Your task to perform on an android device: change the clock style Image 0: 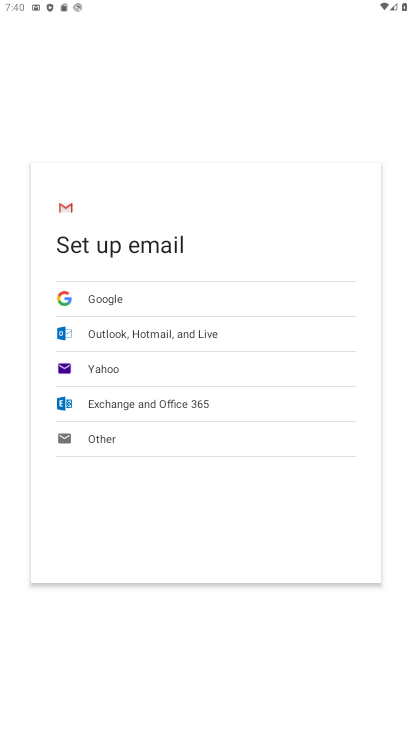
Step 0: click (279, 80)
Your task to perform on an android device: change the clock style Image 1: 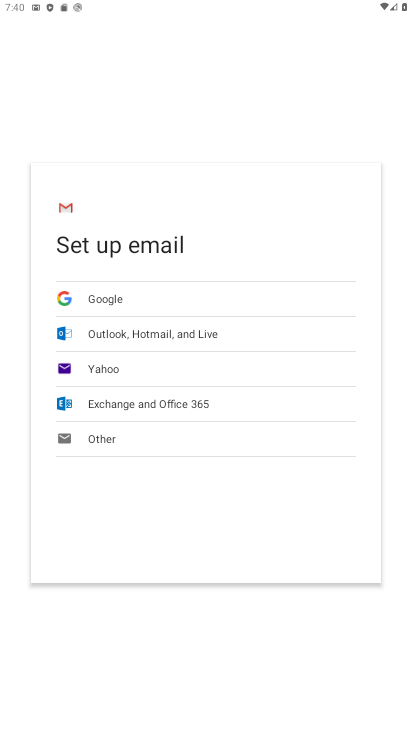
Step 1: click (283, 63)
Your task to perform on an android device: change the clock style Image 2: 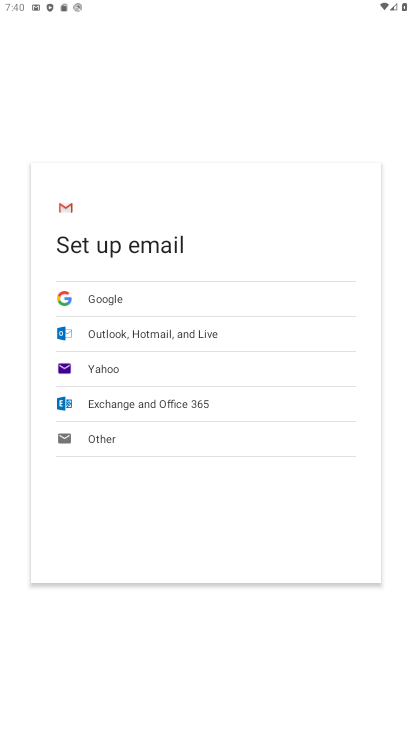
Step 2: click (283, 63)
Your task to perform on an android device: change the clock style Image 3: 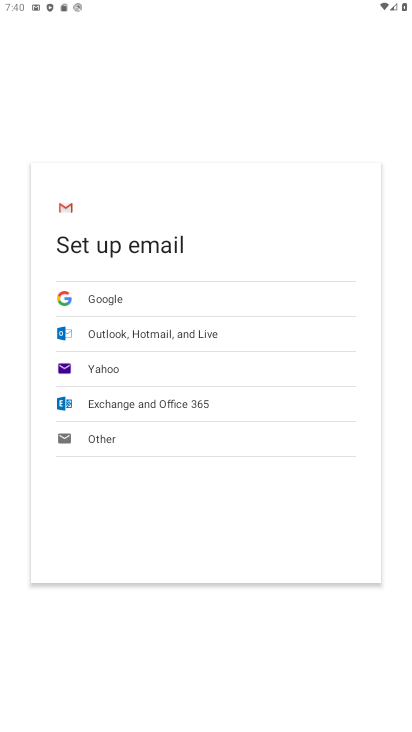
Step 3: press back button
Your task to perform on an android device: change the clock style Image 4: 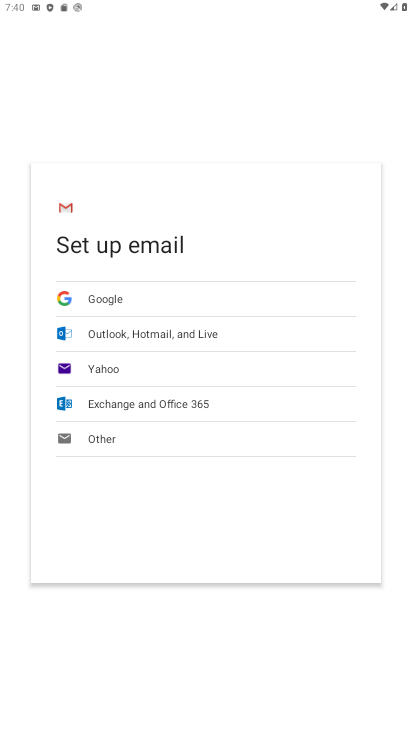
Step 4: press back button
Your task to perform on an android device: change the clock style Image 5: 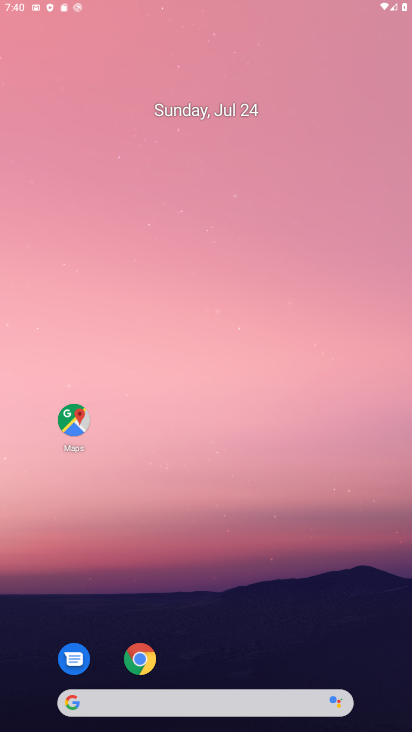
Step 5: press back button
Your task to perform on an android device: change the clock style Image 6: 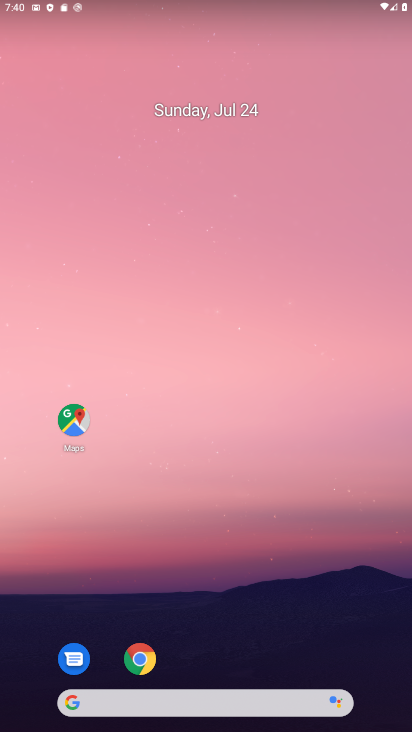
Step 6: drag from (212, 561) to (137, 3)
Your task to perform on an android device: change the clock style Image 7: 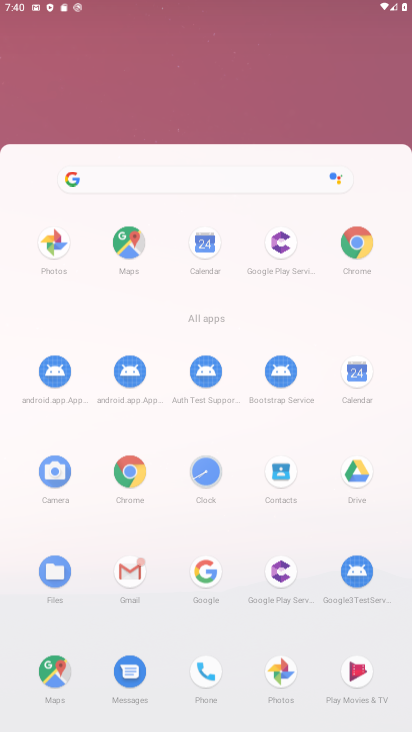
Step 7: drag from (208, 417) to (147, 8)
Your task to perform on an android device: change the clock style Image 8: 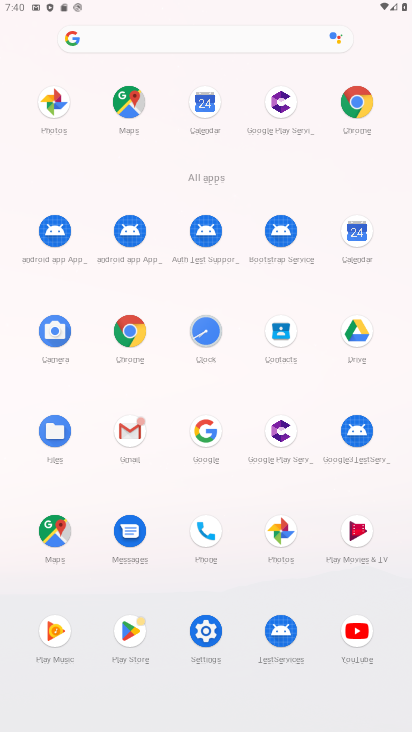
Step 8: click (198, 339)
Your task to perform on an android device: change the clock style Image 9: 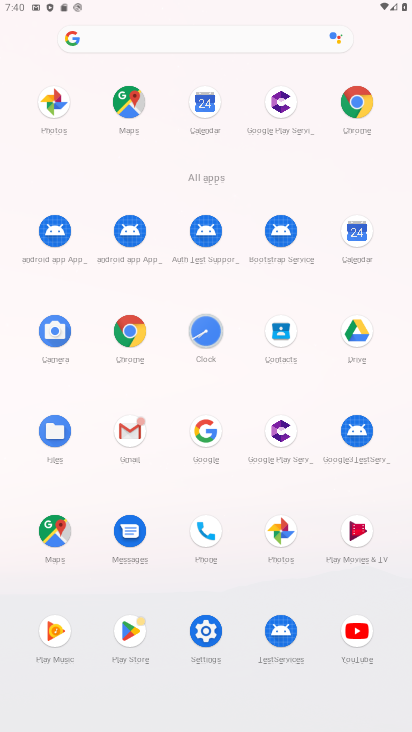
Step 9: click (197, 339)
Your task to perform on an android device: change the clock style Image 10: 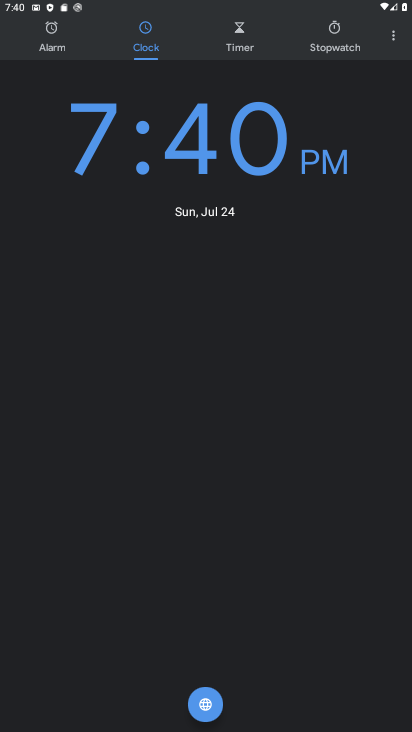
Step 10: click (393, 42)
Your task to perform on an android device: change the clock style Image 11: 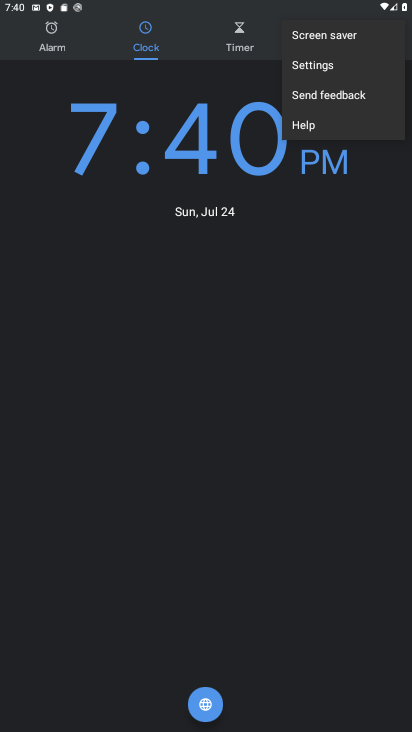
Step 11: click (300, 63)
Your task to perform on an android device: change the clock style Image 12: 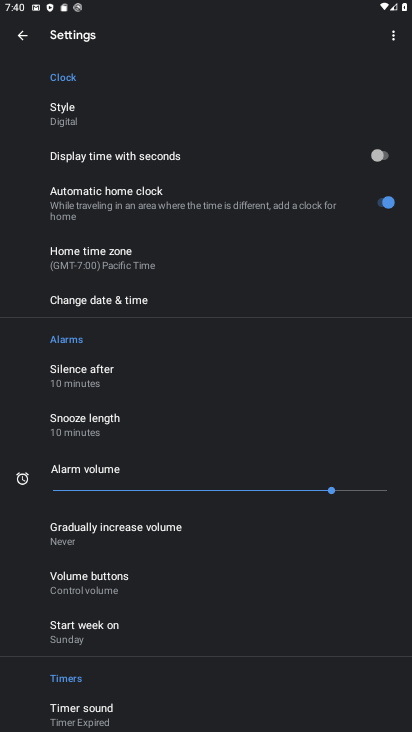
Step 12: click (72, 117)
Your task to perform on an android device: change the clock style Image 13: 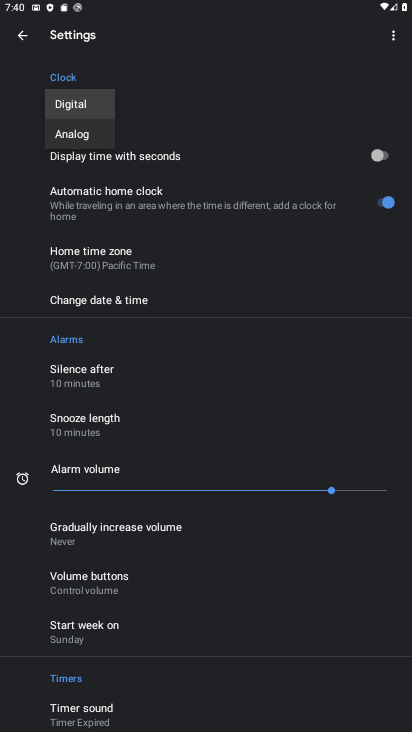
Step 13: click (74, 133)
Your task to perform on an android device: change the clock style Image 14: 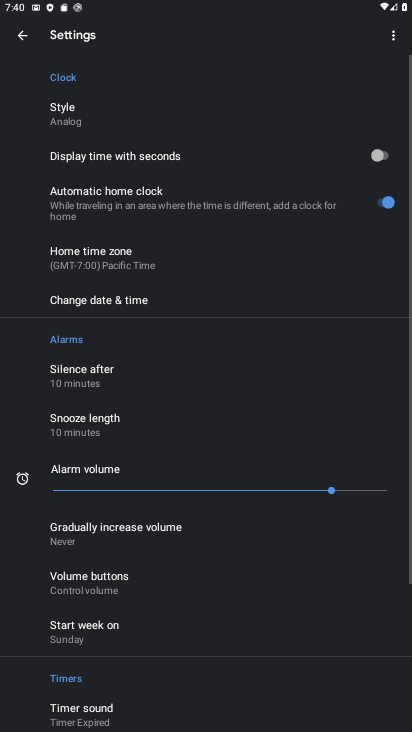
Step 14: task complete